Your task to perform on an android device: Open display settings Image 0: 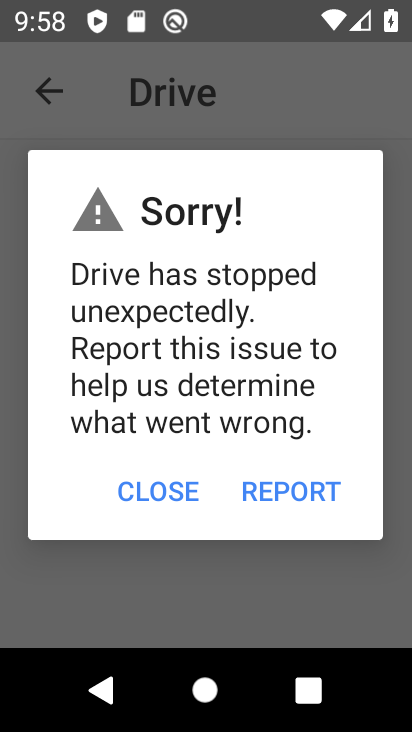
Step 0: click (179, 492)
Your task to perform on an android device: Open display settings Image 1: 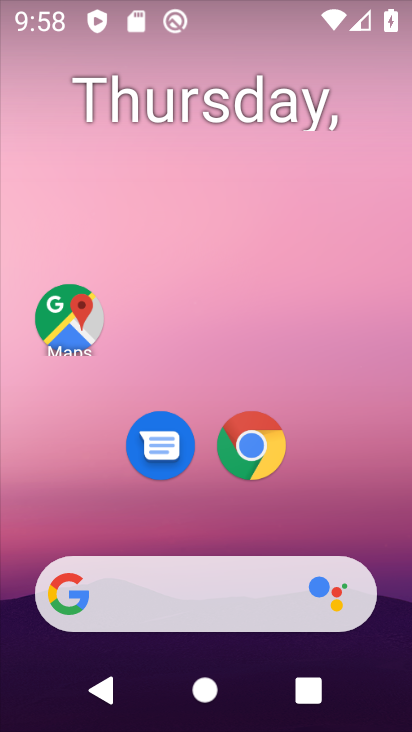
Step 1: drag from (199, 519) to (314, 6)
Your task to perform on an android device: Open display settings Image 2: 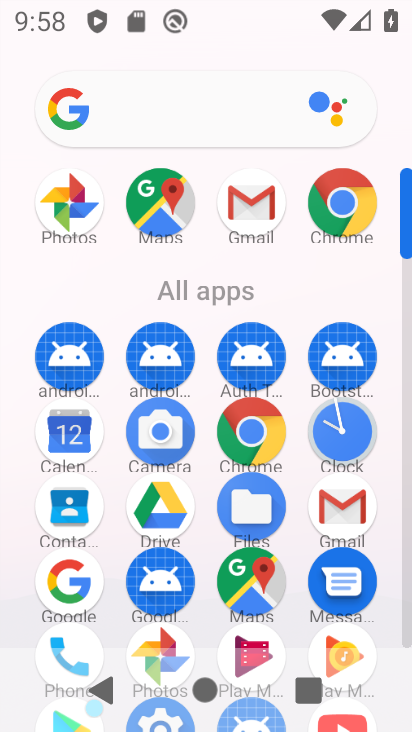
Step 2: drag from (204, 467) to (280, 18)
Your task to perform on an android device: Open display settings Image 3: 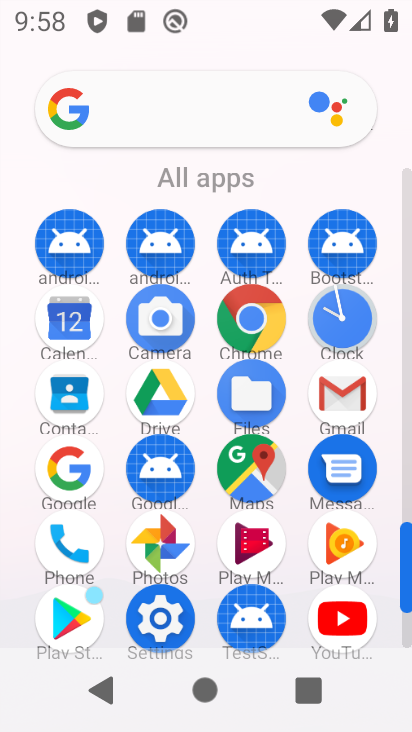
Step 3: click (165, 619)
Your task to perform on an android device: Open display settings Image 4: 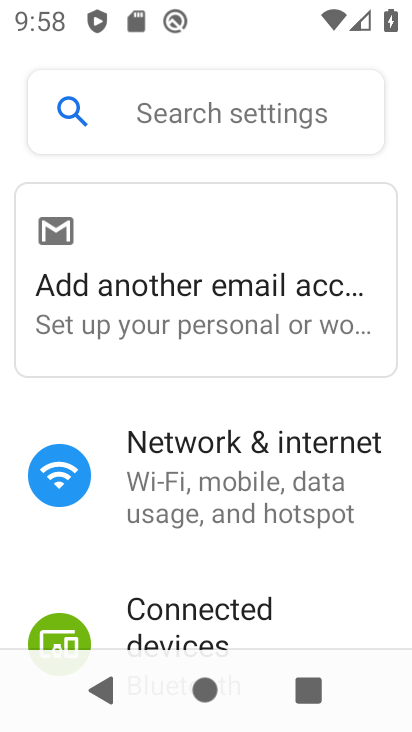
Step 4: drag from (208, 551) to (273, 230)
Your task to perform on an android device: Open display settings Image 5: 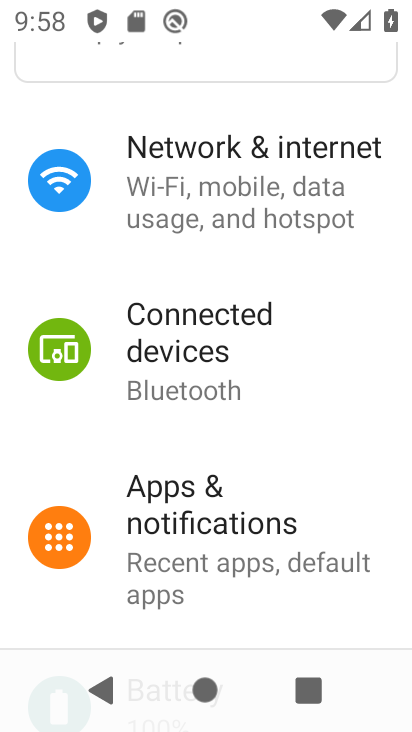
Step 5: drag from (185, 586) to (250, 299)
Your task to perform on an android device: Open display settings Image 6: 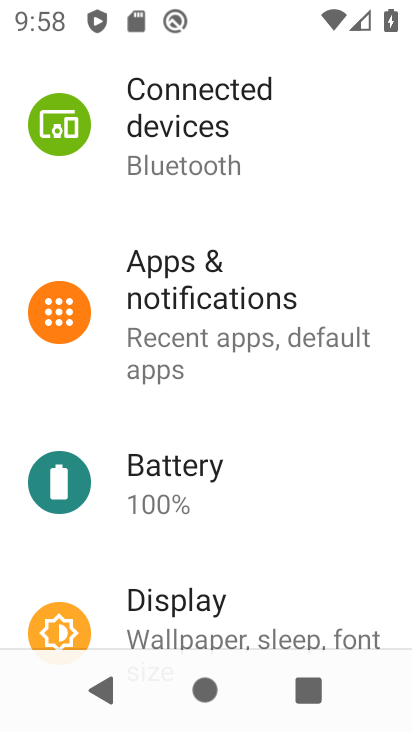
Step 6: click (167, 604)
Your task to perform on an android device: Open display settings Image 7: 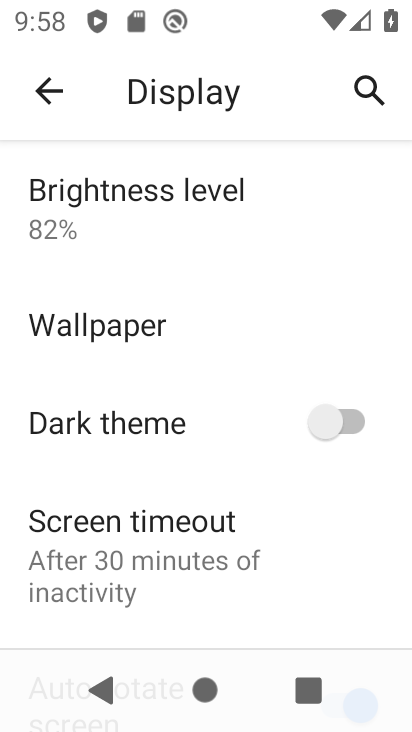
Step 7: task complete